Your task to perform on an android device: What's on my calendar today? Image 0: 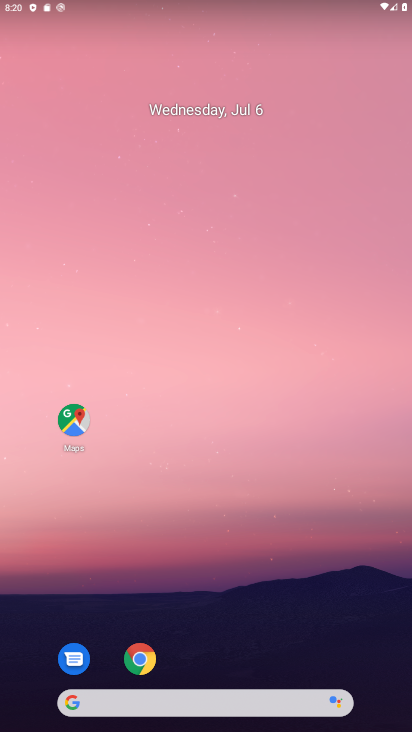
Step 0: drag from (248, 625) to (213, 142)
Your task to perform on an android device: What's on my calendar today? Image 1: 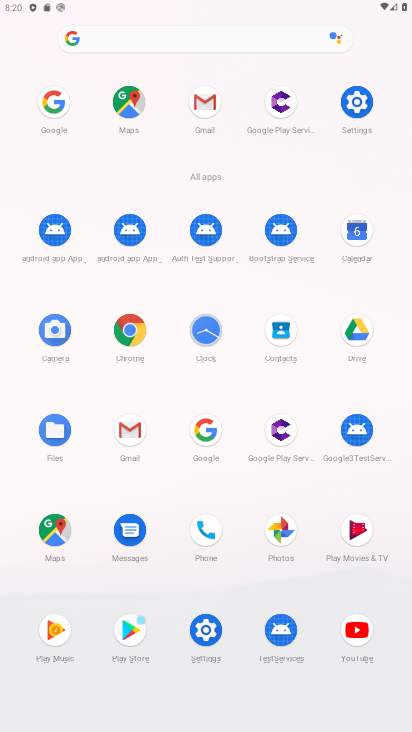
Step 1: click (358, 234)
Your task to perform on an android device: What's on my calendar today? Image 2: 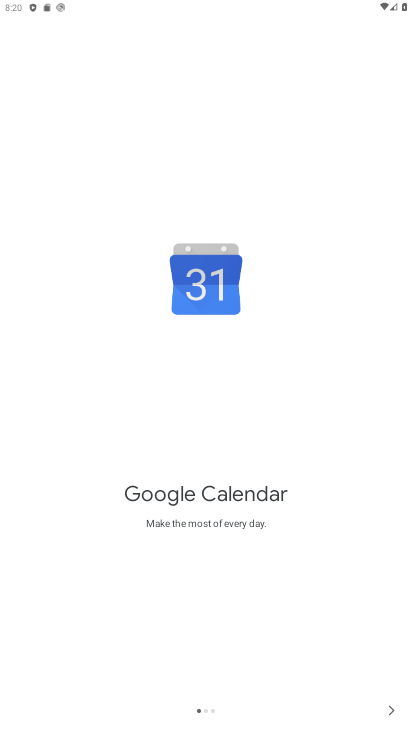
Step 2: click (386, 708)
Your task to perform on an android device: What's on my calendar today? Image 3: 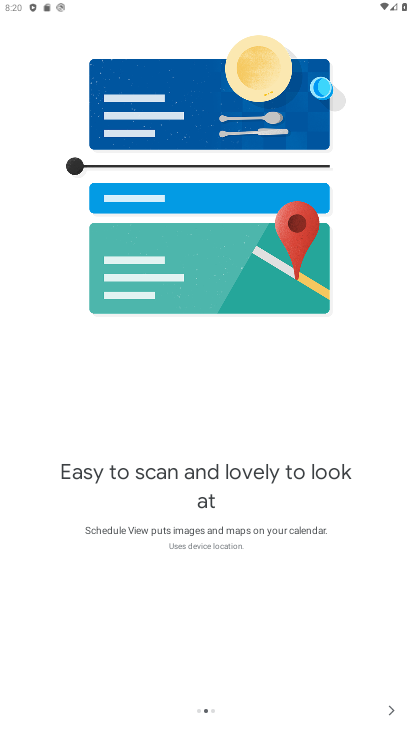
Step 3: click (386, 708)
Your task to perform on an android device: What's on my calendar today? Image 4: 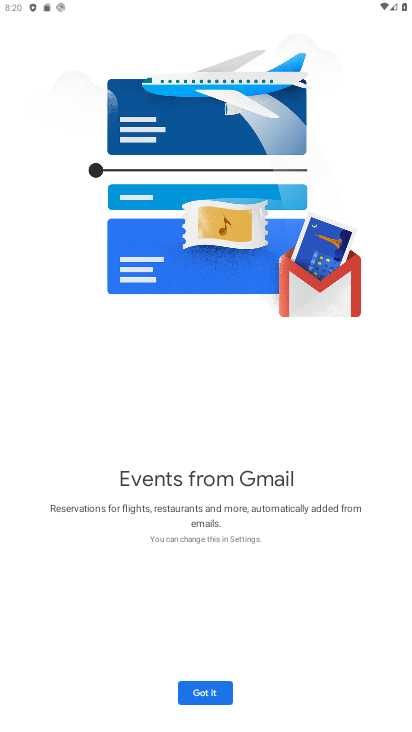
Step 4: click (208, 697)
Your task to perform on an android device: What's on my calendar today? Image 5: 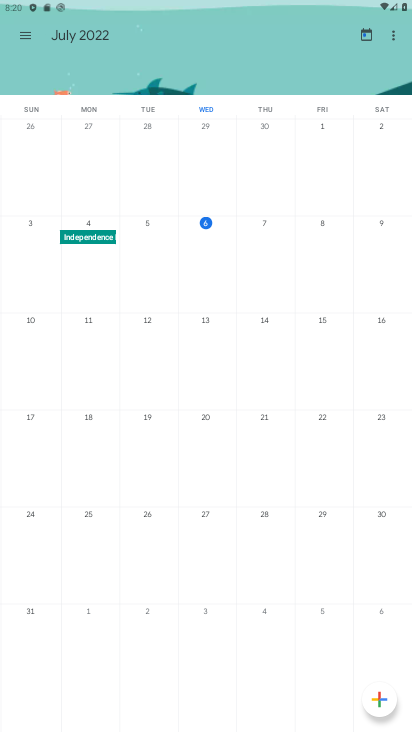
Step 5: click (260, 235)
Your task to perform on an android device: What's on my calendar today? Image 6: 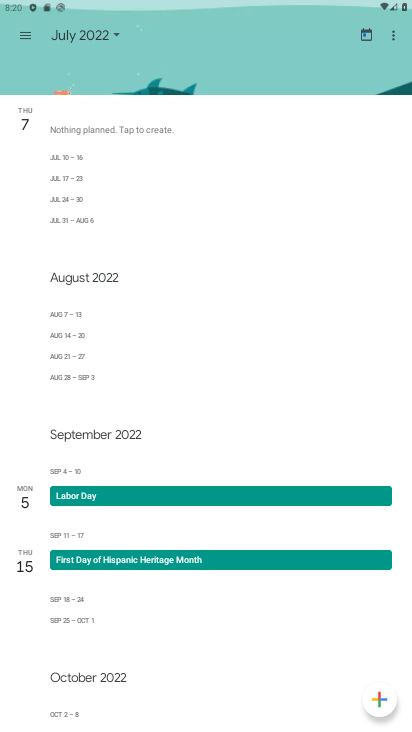
Step 6: task complete